Your task to perform on an android device: Go to Yahoo.com Image 0: 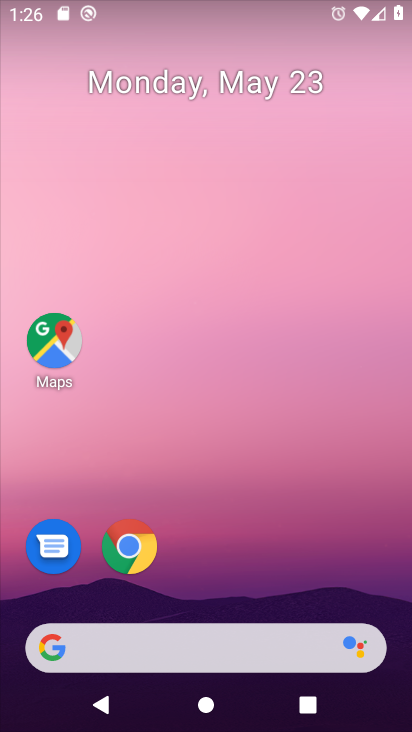
Step 0: drag from (241, 645) to (281, 103)
Your task to perform on an android device: Go to Yahoo.com Image 1: 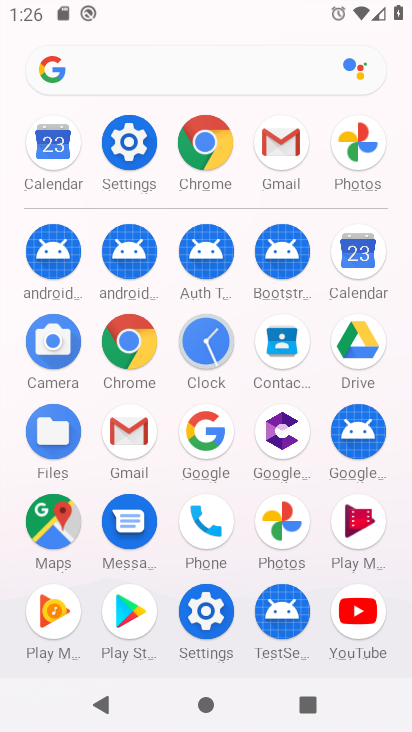
Step 1: click (207, 163)
Your task to perform on an android device: Go to Yahoo.com Image 2: 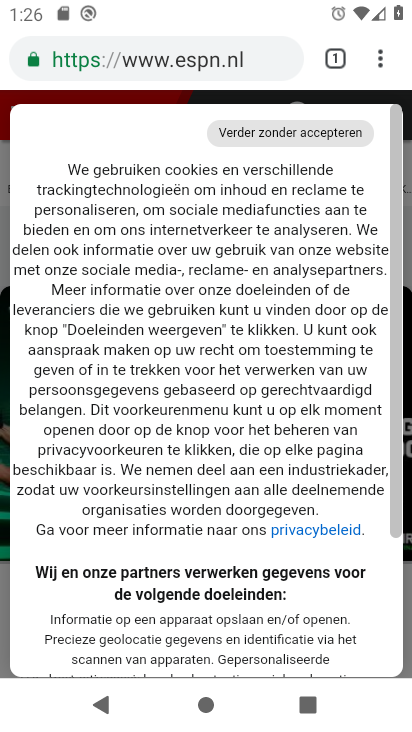
Step 2: click (222, 57)
Your task to perform on an android device: Go to Yahoo.com Image 3: 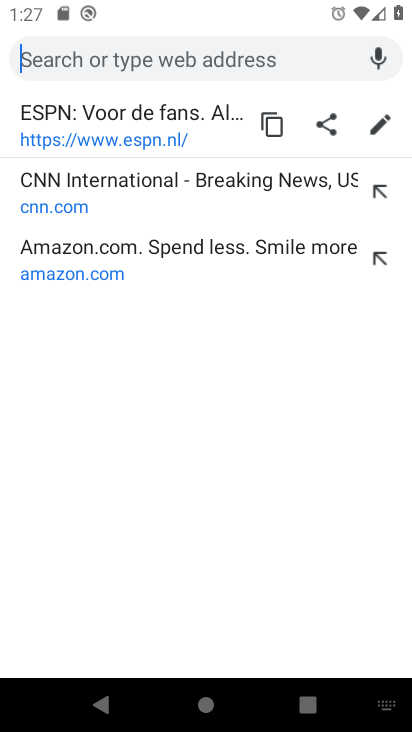
Step 3: type "yahoo"
Your task to perform on an android device: Go to Yahoo.com Image 4: 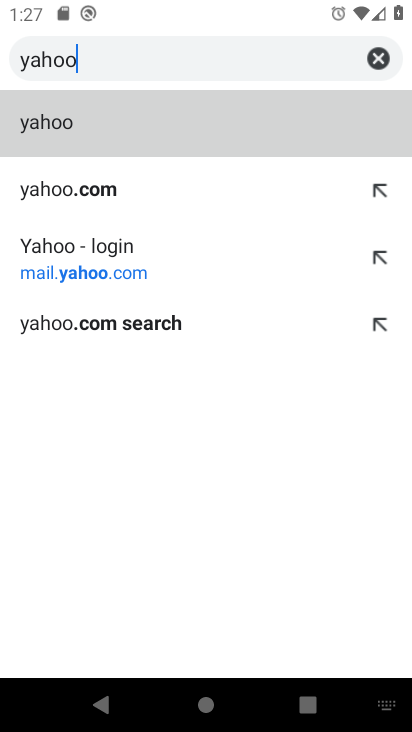
Step 4: click (274, 175)
Your task to perform on an android device: Go to Yahoo.com Image 5: 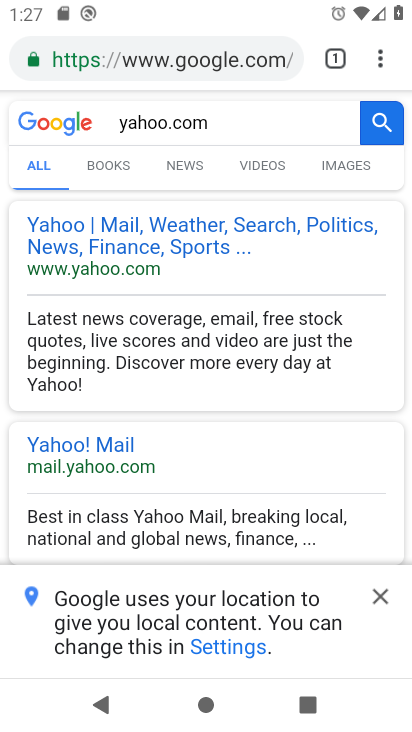
Step 5: click (133, 229)
Your task to perform on an android device: Go to Yahoo.com Image 6: 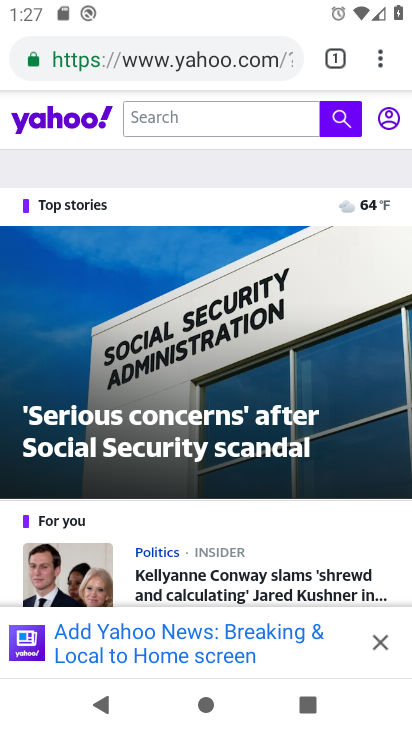
Step 6: task complete